Your task to perform on an android device: Open calendar and show me the second week of next month Image 0: 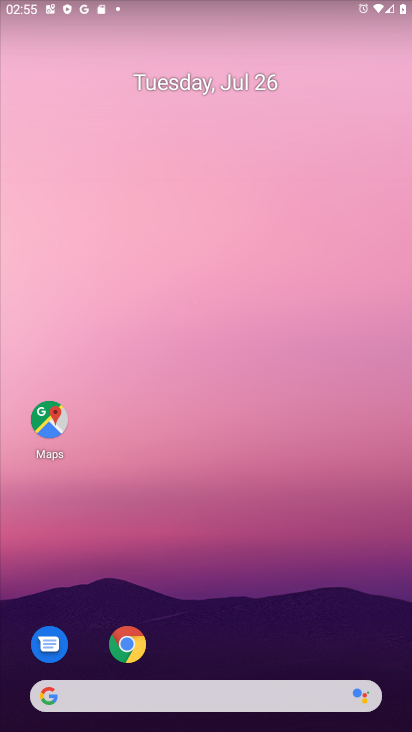
Step 0: drag from (210, 659) to (198, 45)
Your task to perform on an android device: Open calendar and show me the second week of next month Image 1: 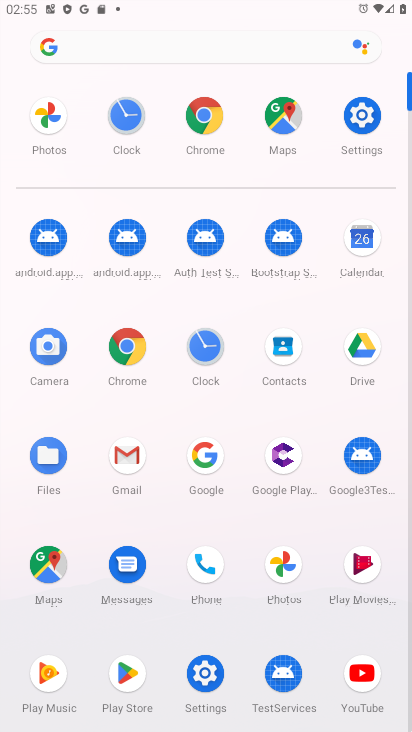
Step 1: click (353, 250)
Your task to perform on an android device: Open calendar and show me the second week of next month Image 2: 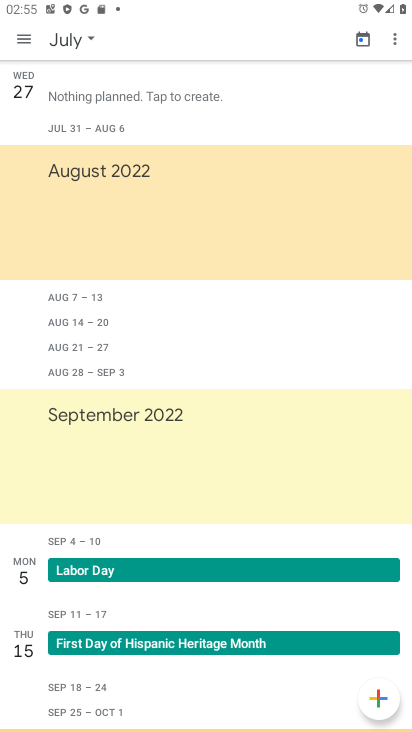
Step 2: click (21, 39)
Your task to perform on an android device: Open calendar and show me the second week of next month Image 3: 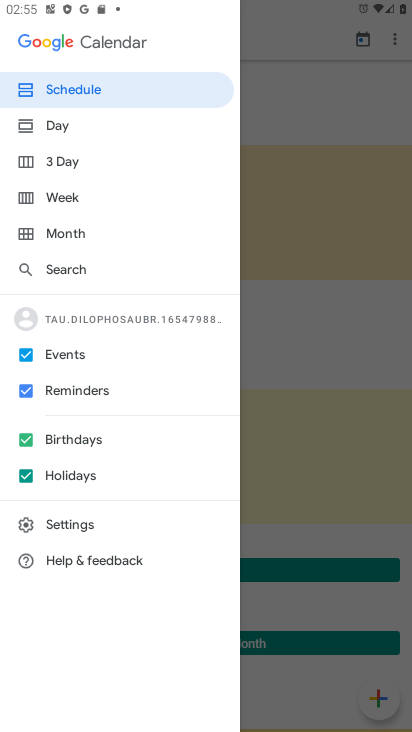
Step 3: click (75, 194)
Your task to perform on an android device: Open calendar and show me the second week of next month Image 4: 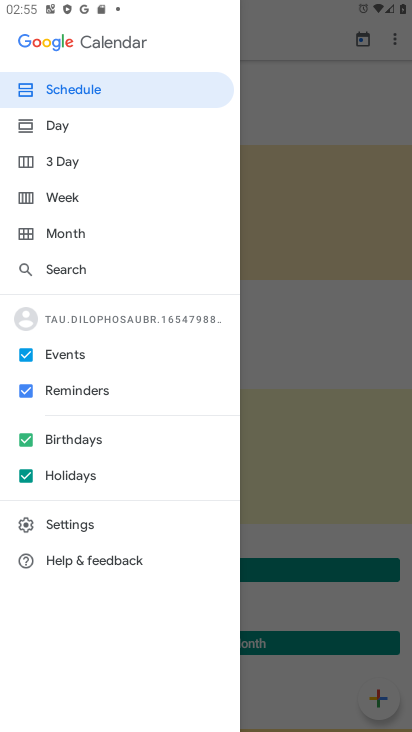
Step 4: click (88, 192)
Your task to perform on an android device: Open calendar and show me the second week of next month Image 5: 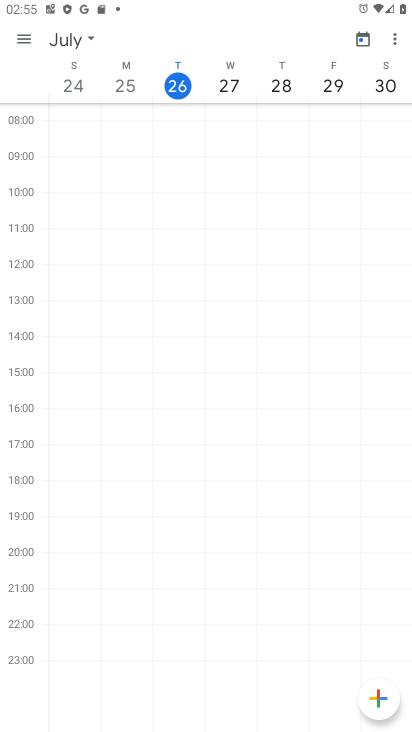
Step 5: task complete